Your task to perform on an android device: toggle data saver in the chrome app Image 0: 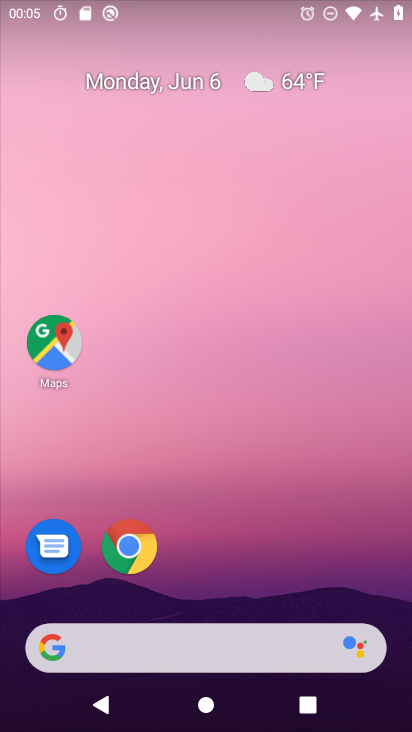
Step 0: drag from (213, 593) to (325, 194)
Your task to perform on an android device: toggle data saver in the chrome app Image 1: 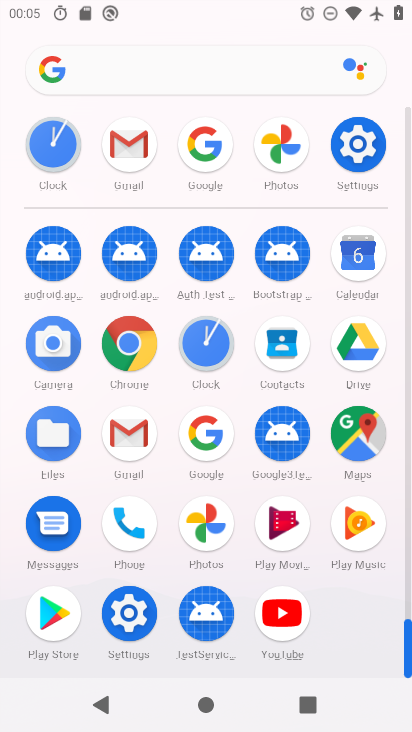
Step 1: click (119, 348)
Your task to perform on an android device: toggle data saver in the chrome app Image 2: 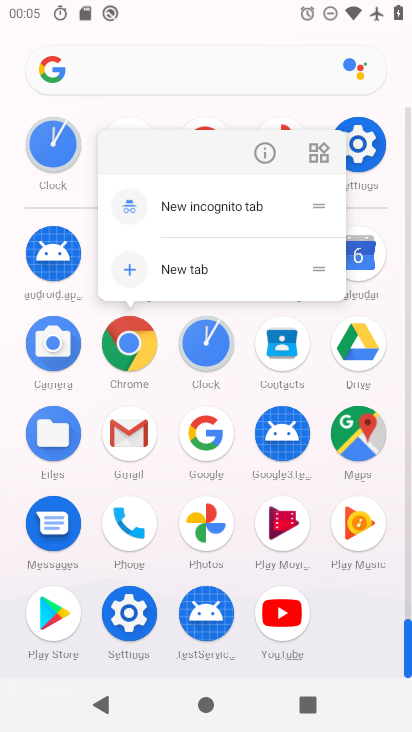
Step 2: click (268, 154)
Your task to perform on an android device: toggle data saver in the chrome app Image 3: 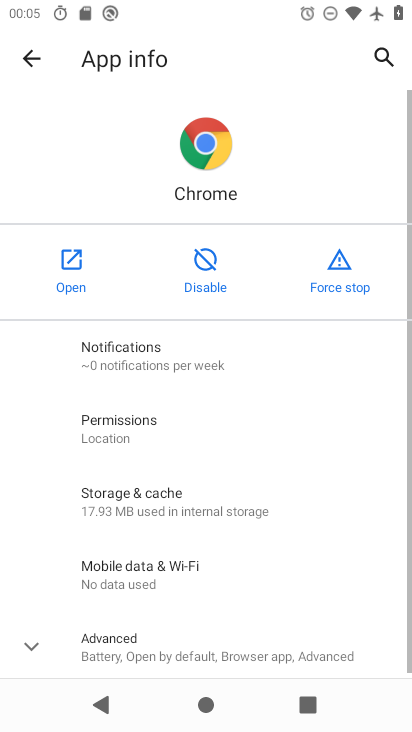
Step 3: click (77, 257)
Your task to perform on an android device: toggle data saver in the chrome app Image 4: 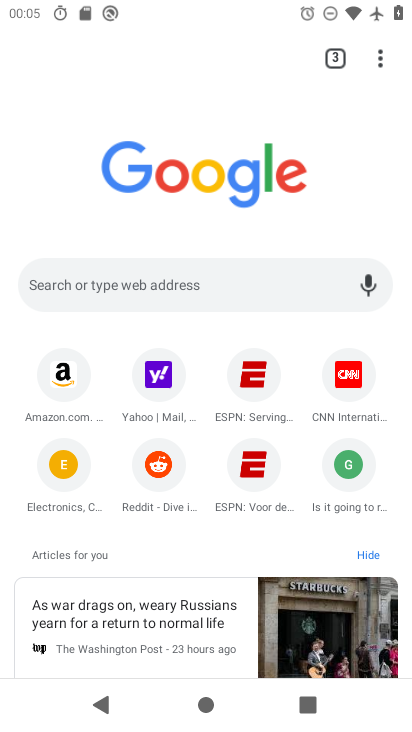
Step 4: drag from (385, 59) to (240, 501)
Your task to perform on an android device: toggle data saver in the chrome app Image 5: 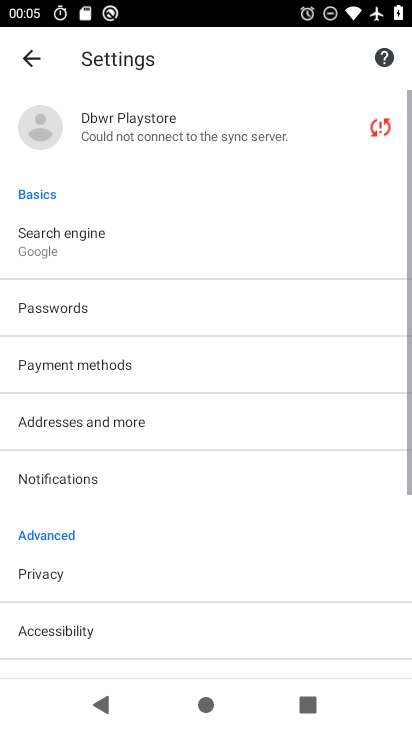
Step 5: drag from (212, 500) to (279, 10)
Your task to perform on an android device: toggle data saver in the chrome app Image 6: 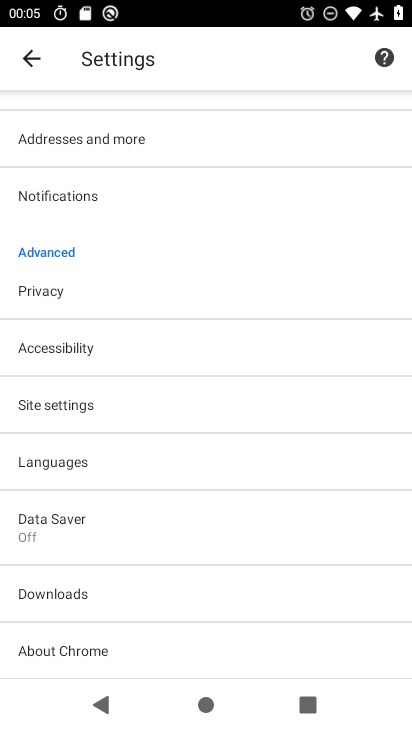
Step 6: drag from (162, 625) to (271, 153)
Your task to perform on an android device: toggle data saver in the chrome app Image 7: 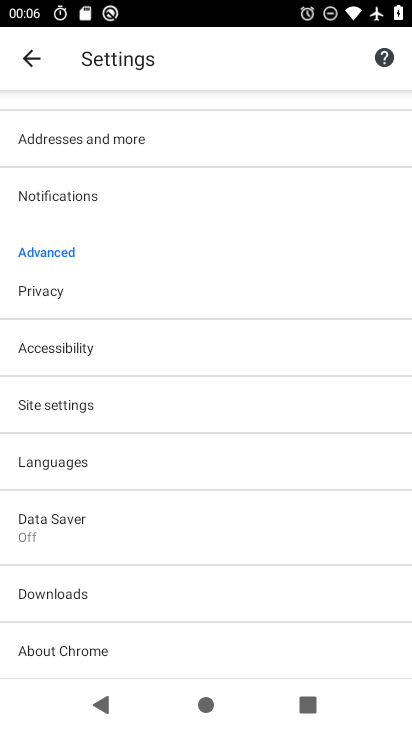
Step 7: click (84, 539)
Your task to perform on an android device: toggle data saver in the chrome app Image 8: 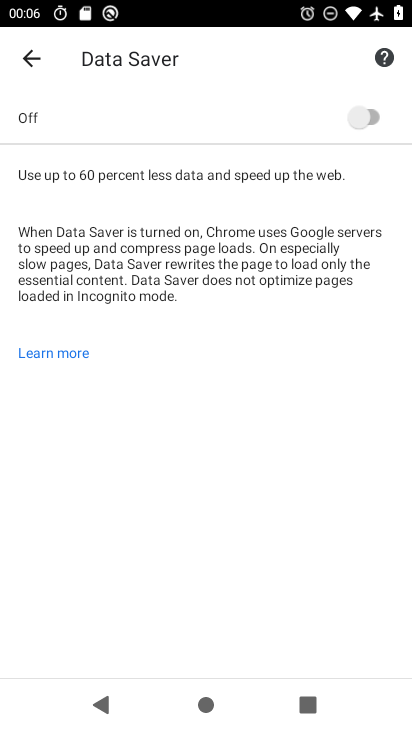
Step 8: drag from (203, 482) to (275, 226)
Your task to perform on an android device: toggle data saver in the chrome app Image 9: 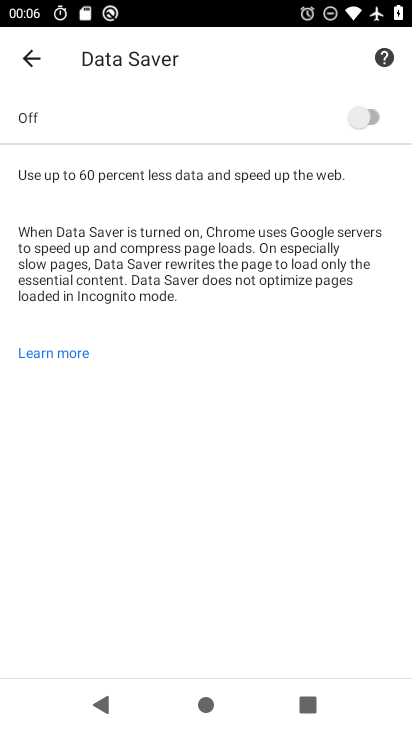
Step 9: click (321, 124)
Your task to perform on an android device: toggle data saver in the chrome app Image 10: 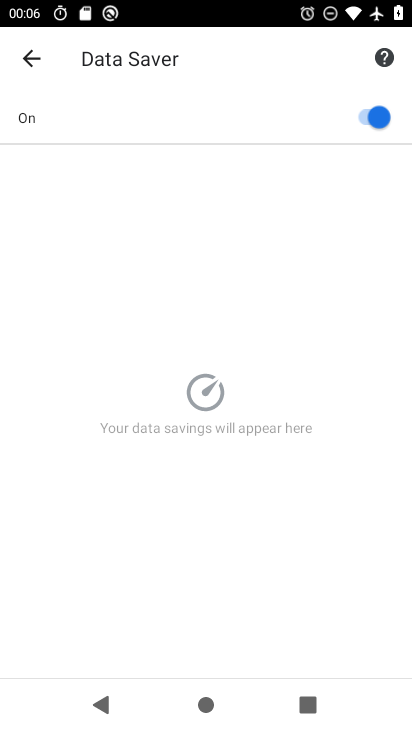
Step 10: task complete